Your task to perform on an android device: turn on airplane mode Image 0: 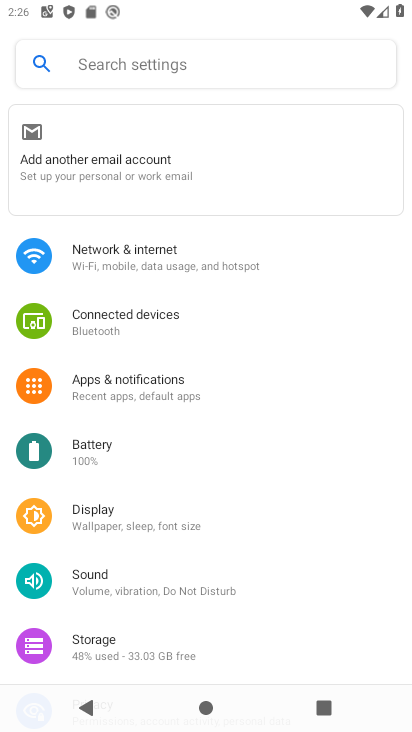
Step 0: drag from (158, 11) to (186, 327)
Your task to perform on an android device: turn on airplane mode Image 1: 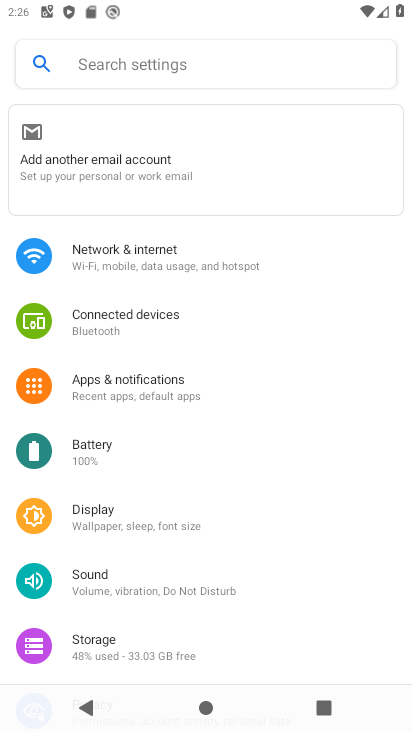
Step 1: drag from (308, 101) to (316, 490)
Your task to perform on an android device: turn on airplane mode Image 2: 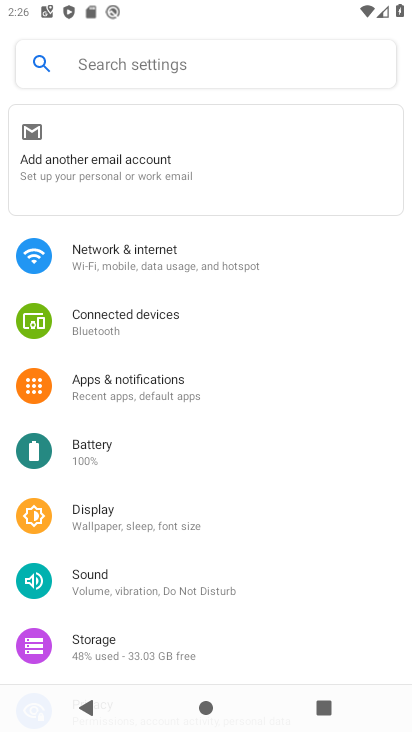
Step 2: drag from (251, 2) to (258, 688)
Your task to perform on an android device: turn on airplane mode Image 3: 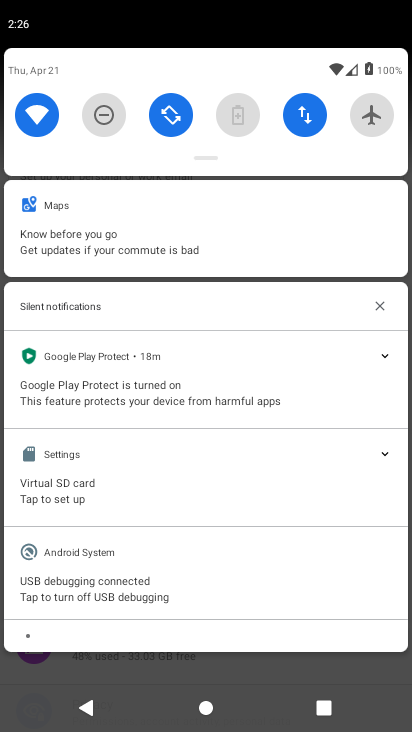
Step 3: click (368, 117)
Your task to perform on an android device: turn on airplane mode Image 4: 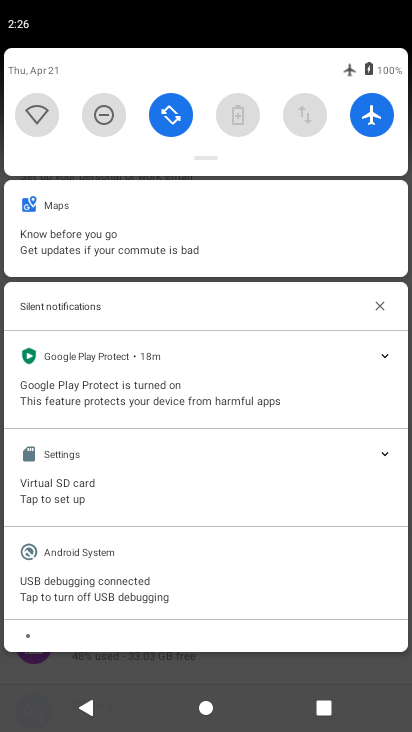
Step 4: task complete